Your task to perform on an android device: Open display settings Image 0: 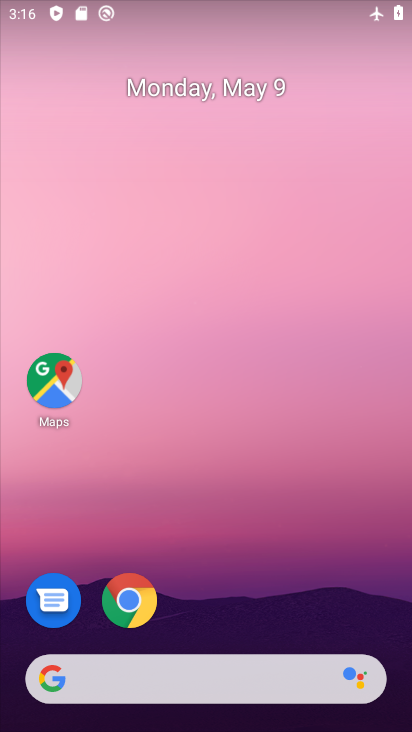
Step 0: drag from (235, 628) to (337, 49)
Your task to perform on an android device: Open display settings Image 1: 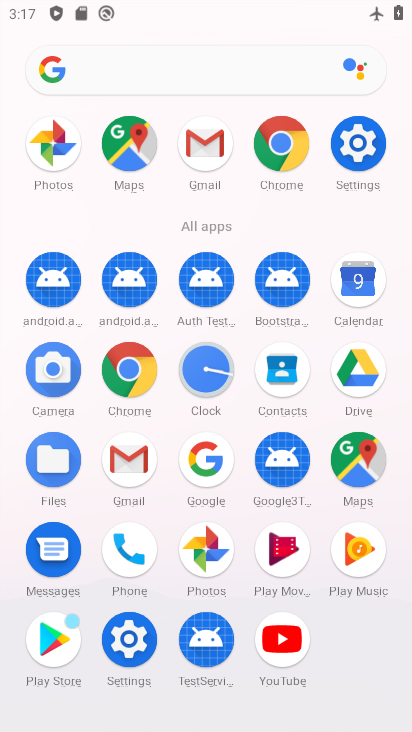
Step 1: click (114, 643)
Your task to perform on an android device: Open display settings Image 2: 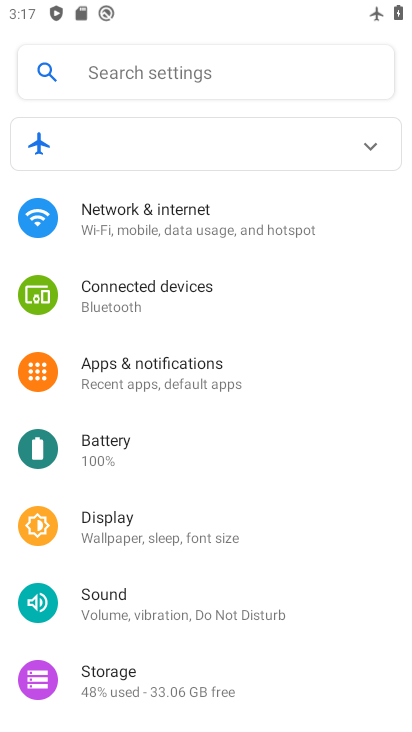
Step 2: click (191, 540)
Your task to perform on an android device: Open display settings Image 3: 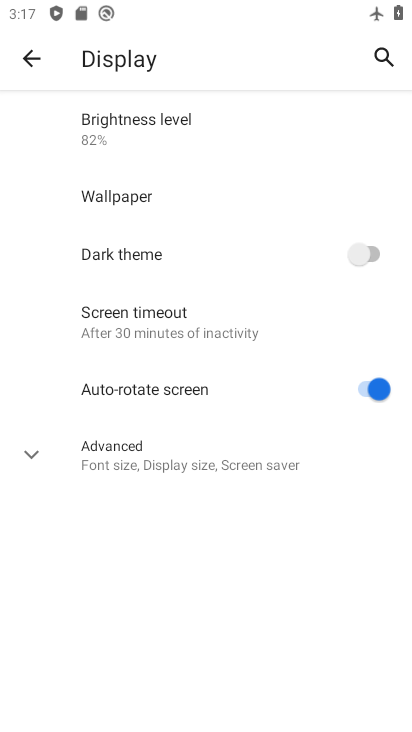
Step 3: task complete